Your task to perform on an android device: toggle show notifications on the lock screen Image 0: 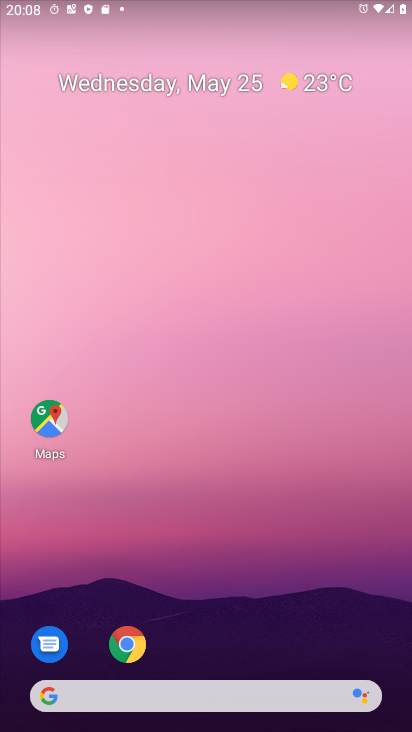
Step 0: drag from (288, 716) to (258, 180)
Your task to perform on an android device: toggle show notifications on the lock screen Image 1: 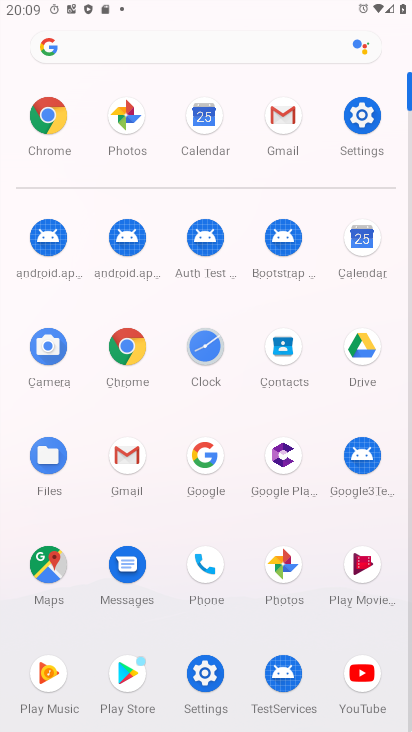
Step 1: click (347, 138)
Your task to perform on an android device: toggle show notifications on the lock screen Image 2: 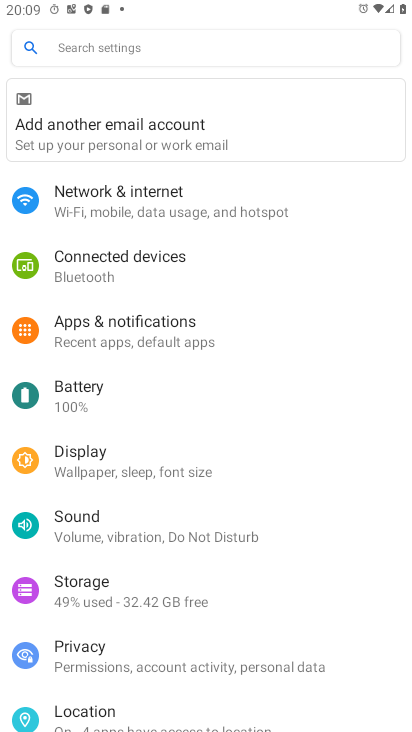
Step 2: click (123, 54)
Your task to perform on an android device: toggle show notifications on the lock screen Image 3: 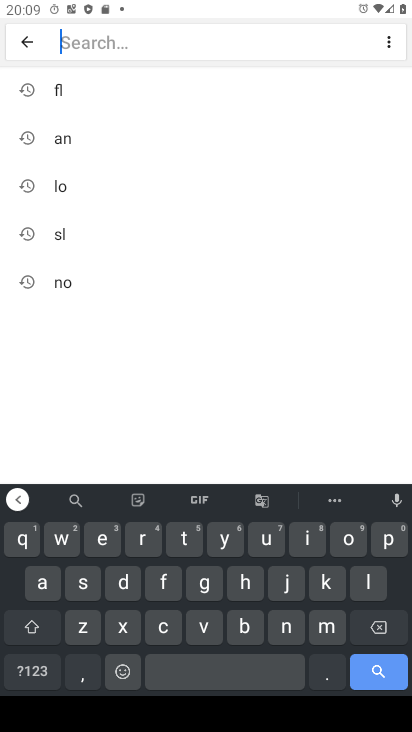
Step 3: click (98, 276)
Your task to perform on an android device: toggle show notifications on the lock screen Image 4: 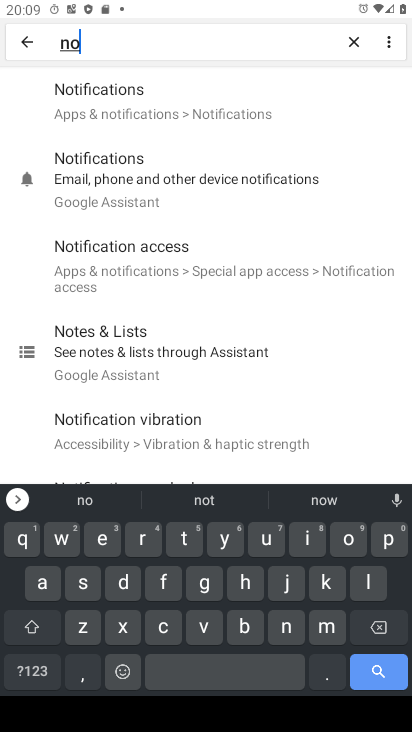
Step 4: click (152, 126)
Your task to perform on an android device: toggle show notifications on the lock screen Image 5: 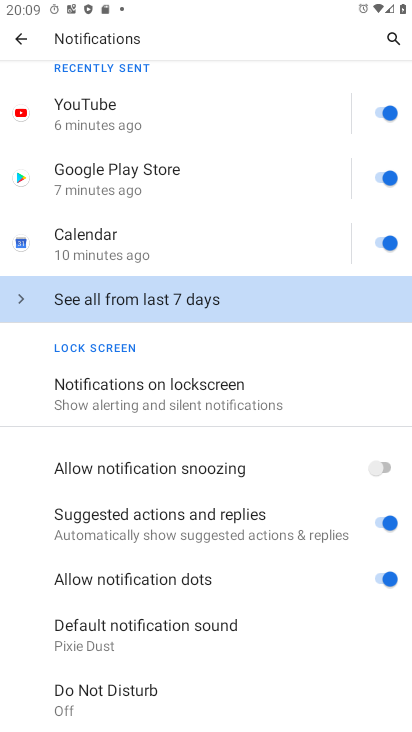
Step 5: click (121, 387)
Your task to perform on an android device: toggle show notifications on the lock screen Image 6: 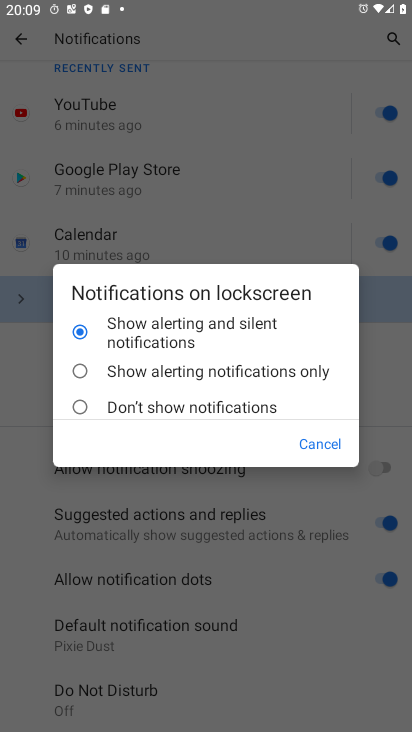
Step 6: task complete